Your task to perform on an android device: turn on the 24-hour format for clock Image 0: 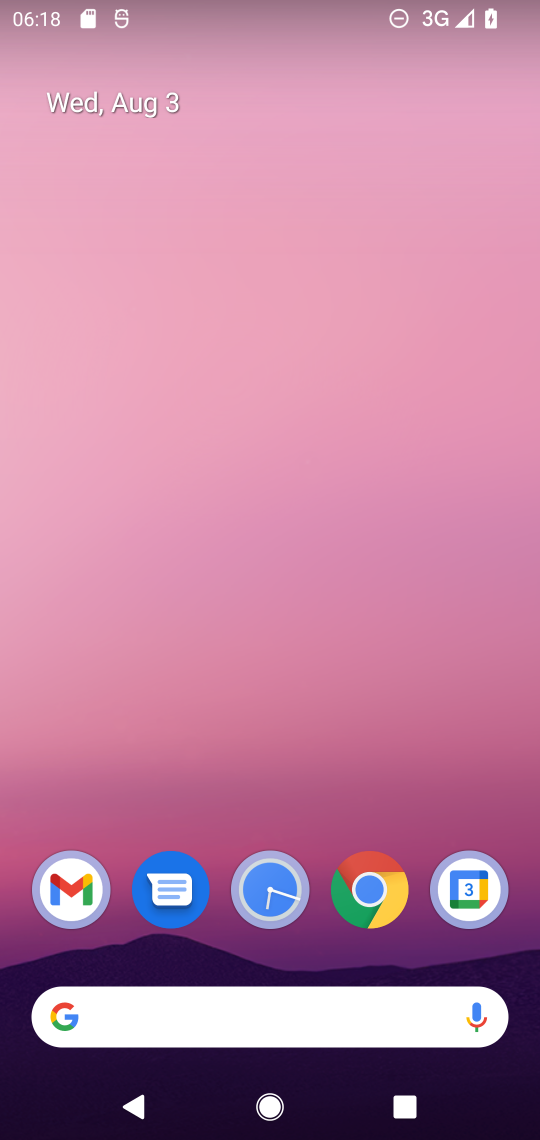
Step 0: drag from (280, 740) to (333, 21)
Your task to perform on an android device: turn on the 24-hour format for clock Image 1: 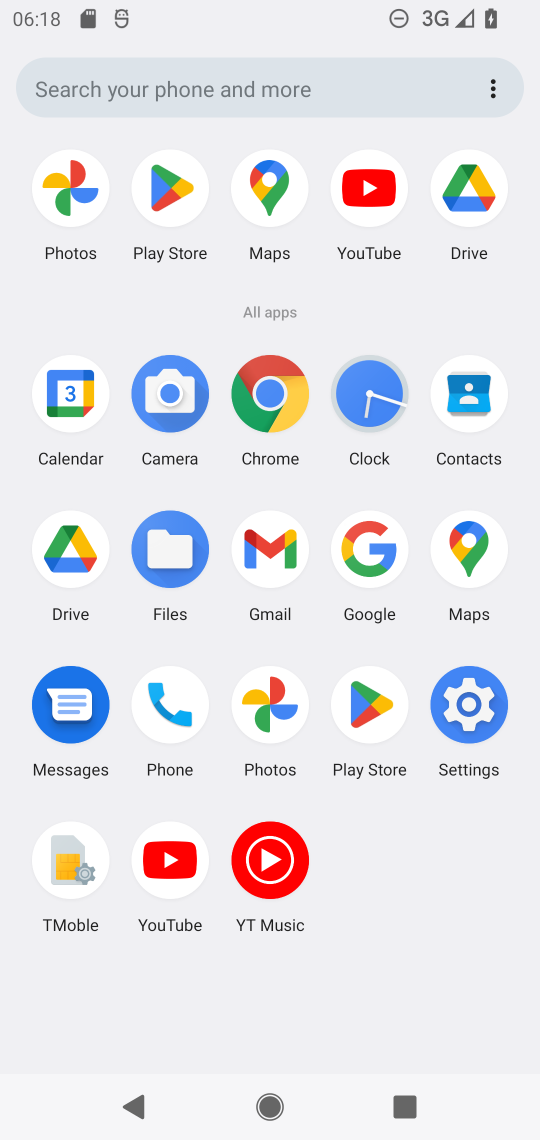
Step 1: click (371, 391)
Your task to perform on an android device: turn on the 24-hour format for clock Image 2: 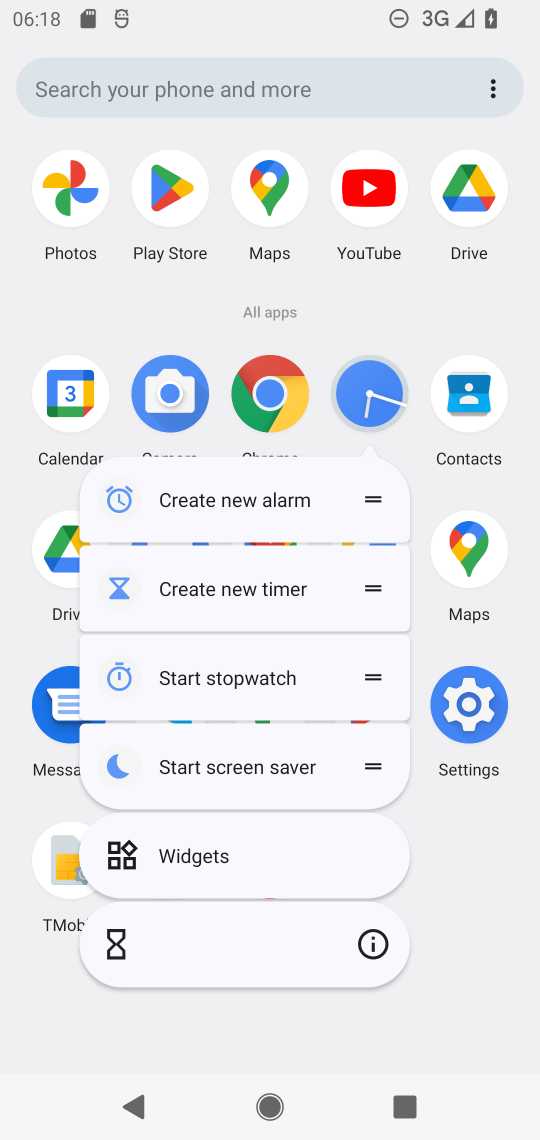
Step 2: click (371, 393)
Your task to perform on an android device: turn on the 24-hour format for clock Image 3: 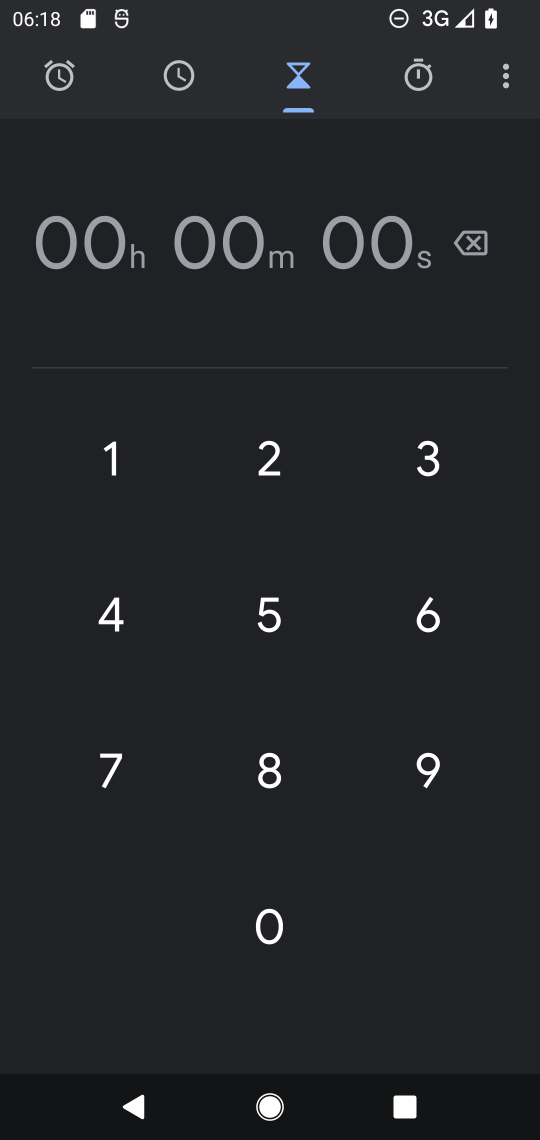
Step 3: click (508, 81)
Your task to perform on an android device: turn on the 24-hour format for clock Image 4: 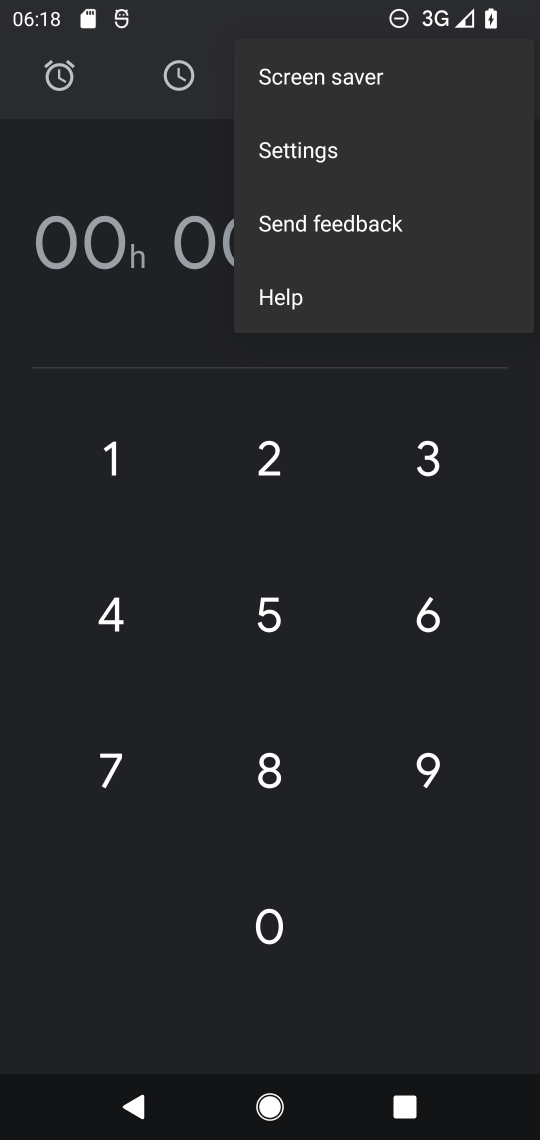
Step 4: click (375, 150)
Your task to perform on an android device: turn on the 24-hour format for clock Image 5: 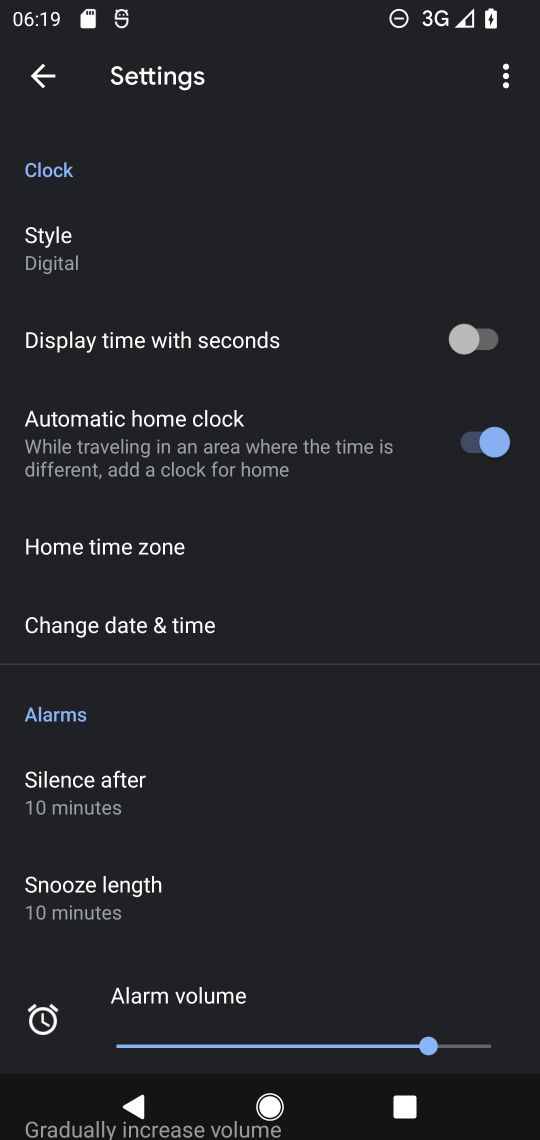
Step 5: click (301, 639)
Your task to perform on an android device: turn on the 24-hour format for clock Image 6: 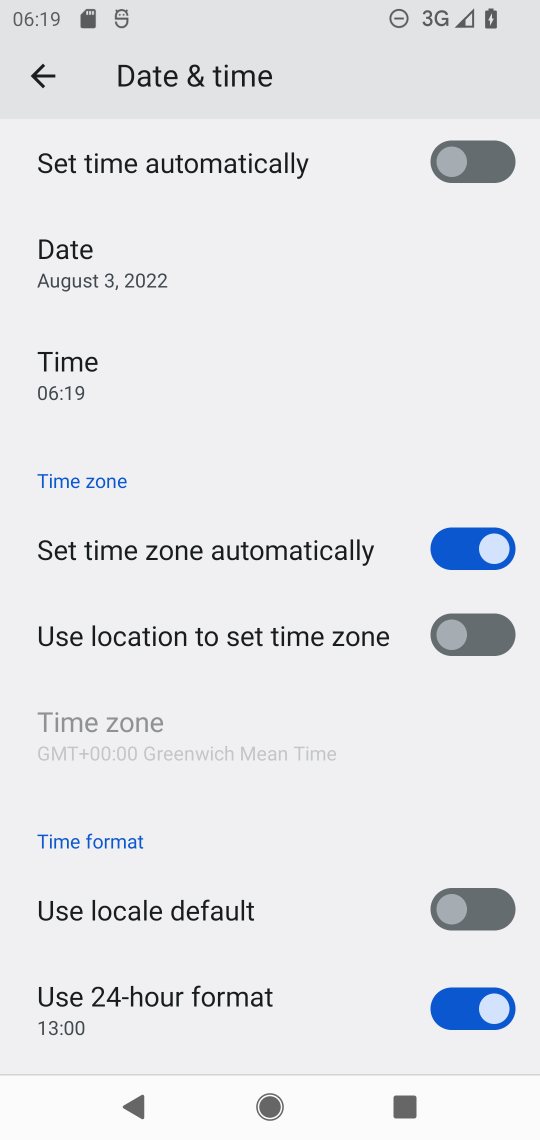
Step 6: task complete